Your task to perform on an android device: Open Yahoo.com Image 0: 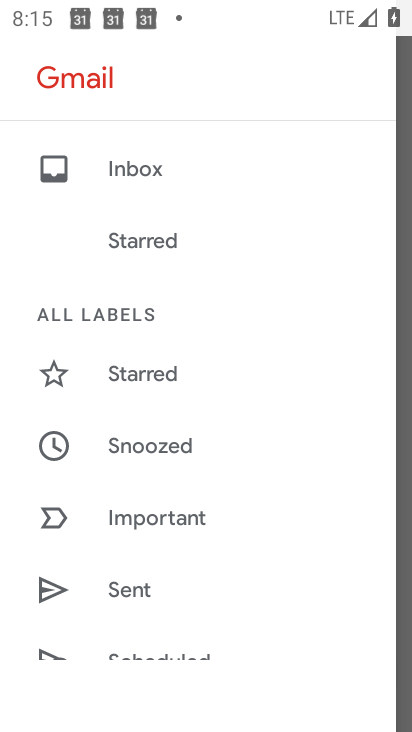
Step 0: press home button
Your task to perform on an android device: Open Yahoo.com Image 1: 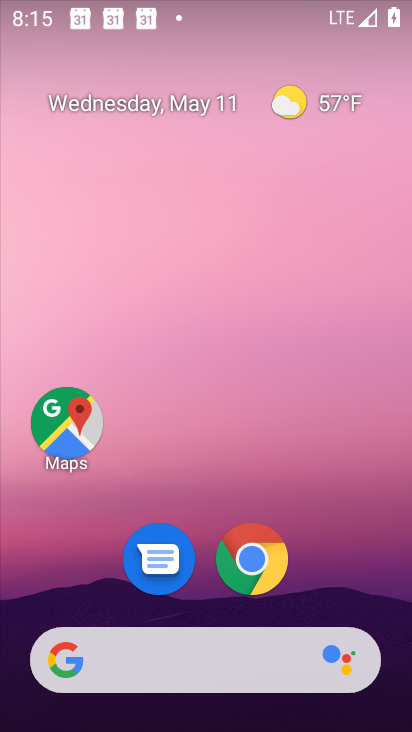
Step 1: click (270, 551)
Your task to perform on an android device: Open Yahoo.com Image 2: 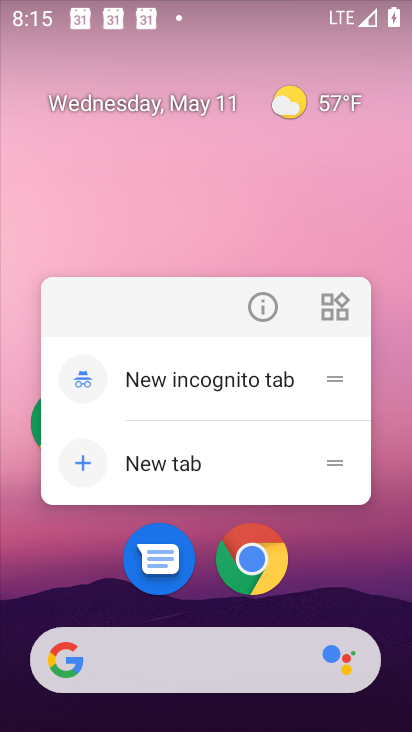
Step 2: click (270, 551)
Your task to perform on an android device: Open Yahoo.com Image 3: 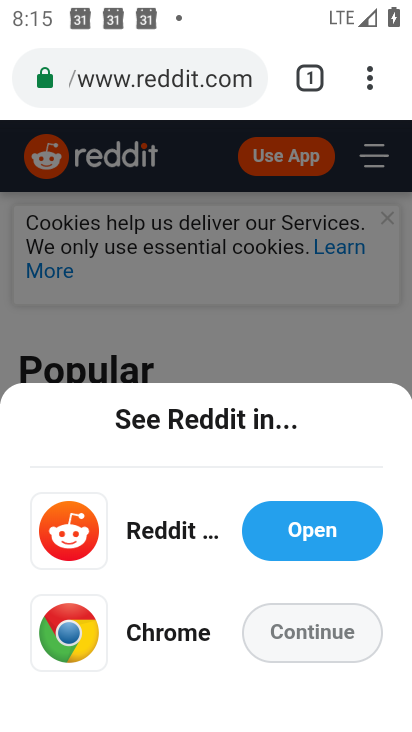
Step 3: click (177, 77)
Your task to perform on an android device: Open Yahoo.com Image 4: 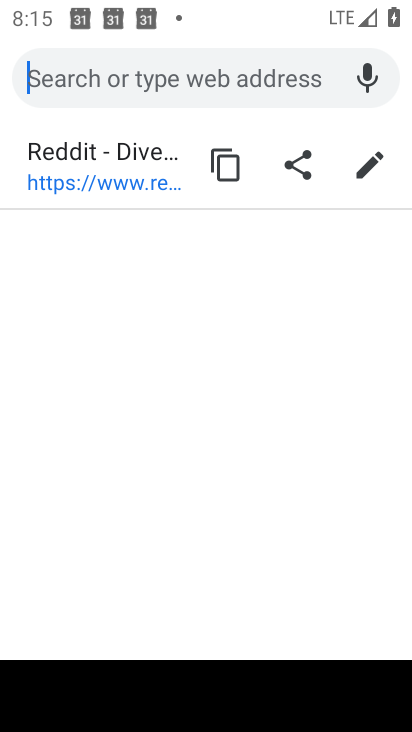
Step 4: click (250, 63)
Your task to perform on an android device: Open Yahoo.com Image 5: 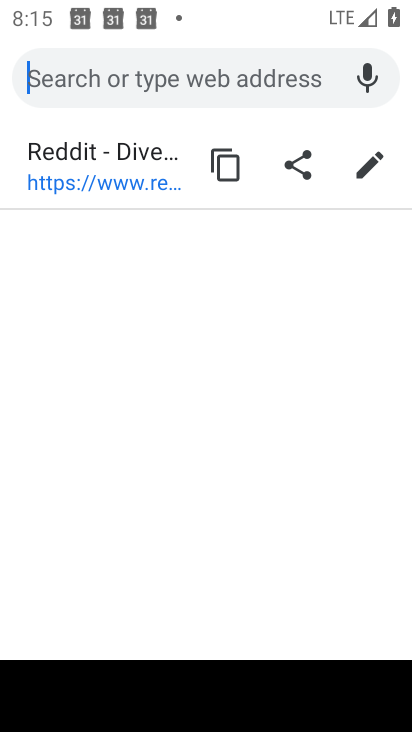
Step 5: click (247, 76)
Your task to perform on an android device: Open Yahoo.com Image 6: 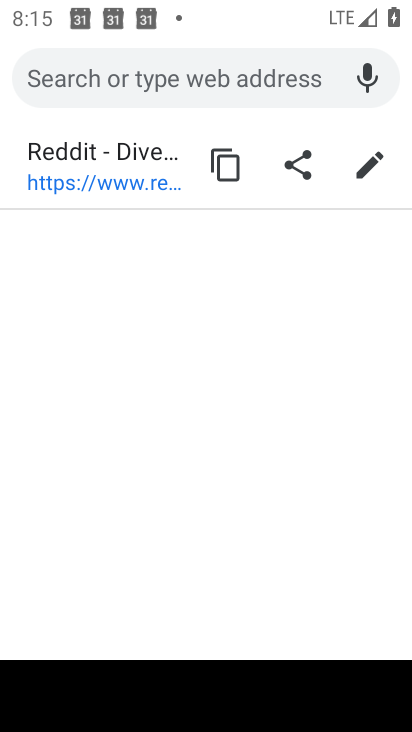
Step 6: type "Yahoo.com"
Your task to perform on an android device: Open Yahoo.com Image 7: 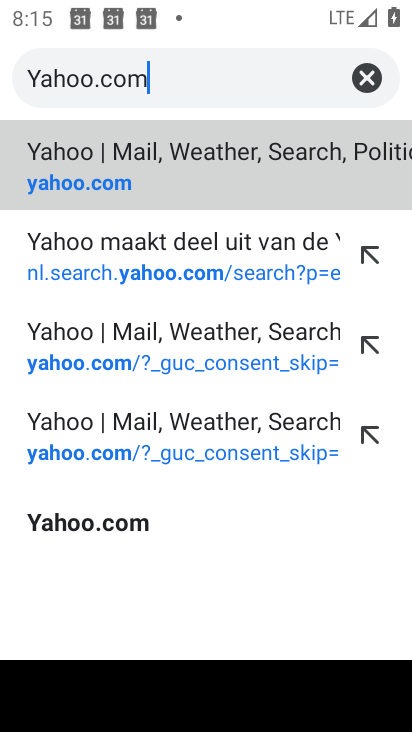
Step 7: click (46, 151)
Your task to perform on an android device: Open Yahoo.com Image 8: 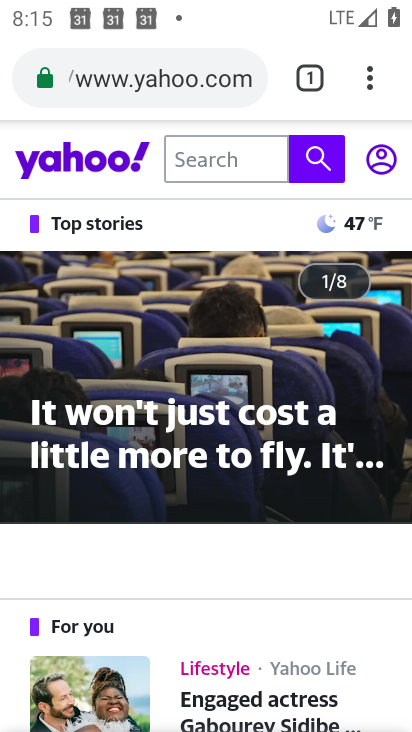
Step 8: task complete